Your task to perform on an android device: Show me the alarms in the clock app Image 0: 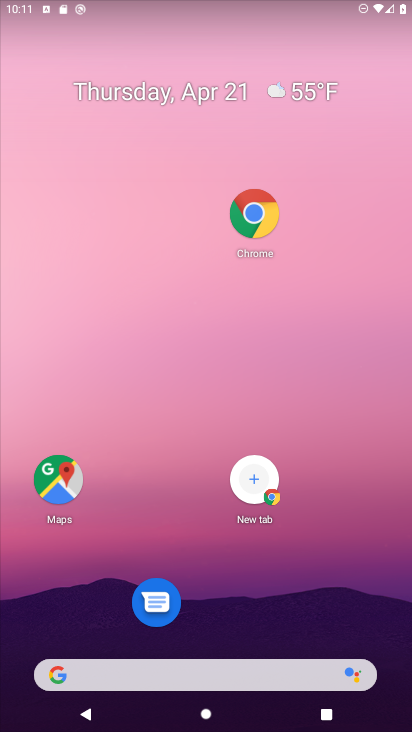
Step 0: drag from (235, 617) to (248, 204)
Your task to perform on an android device: Show me the alarms in the clock app Image 1: 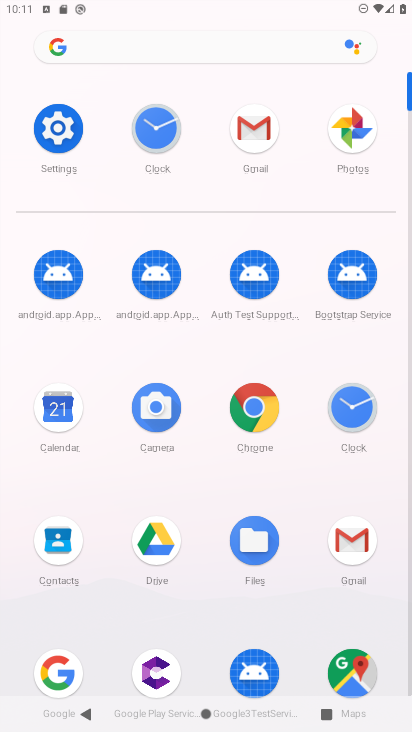
Step 1: click (359, 410)
Your task to perform on an android device: Show me the alarms in the clock app Image 2: 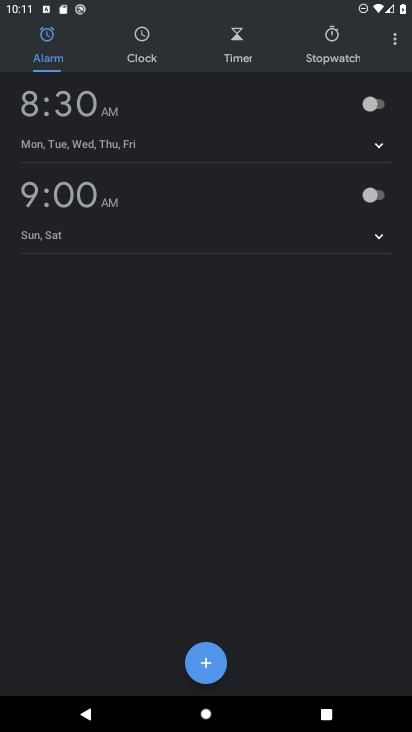
Step 2: task complete